Your task to perform on an android device: choose inbox layout in the gmail app Image 0: 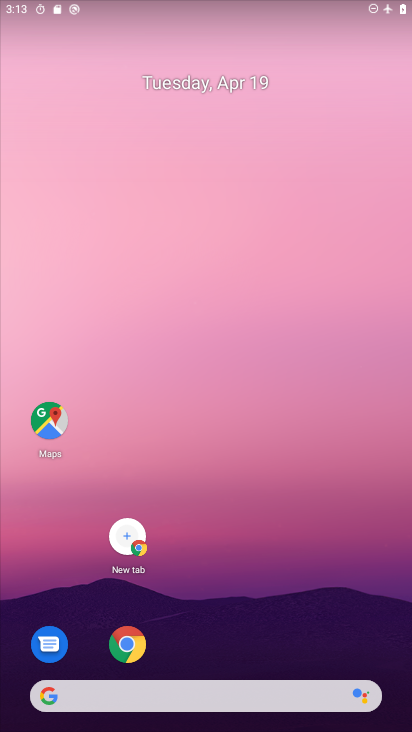
Step 0: drag from (181, 595) to (137, 134)
Your task to perform on an android device: choose inbox layout in the gmail app Image 1: 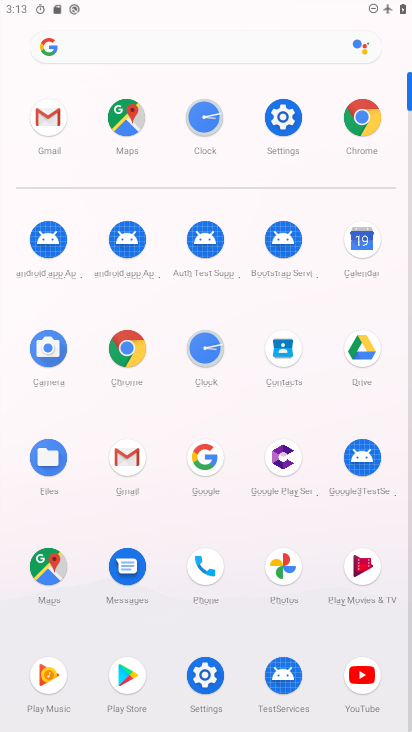
Step 1: click (128, 458)
Your task to perform on an android device: choose inbox layout in the gmail app Image 2: 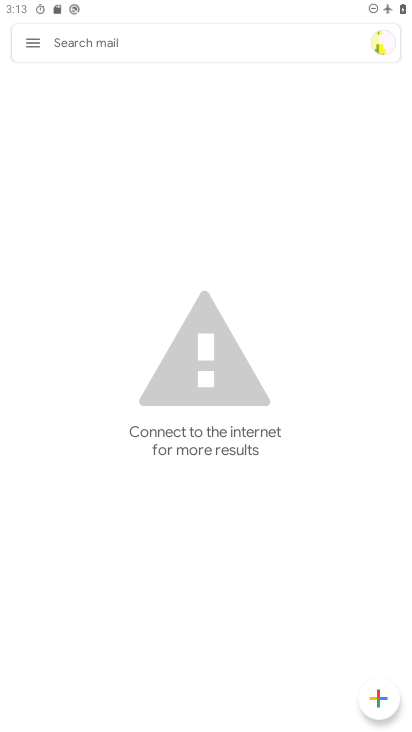
Step 2: click (33, 41)
Your task to perform on an android device: choose inbox layout in the gmail app Image 3: 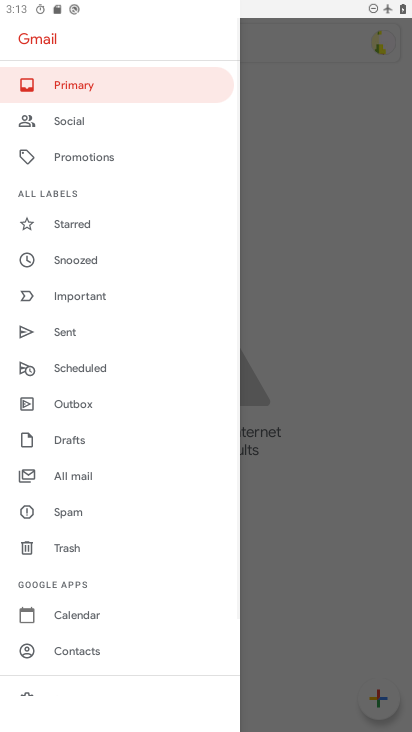
Step 3: click (367, 117)
Your task to perform on an android device: choose inbox layout in the gmail app Image 4: 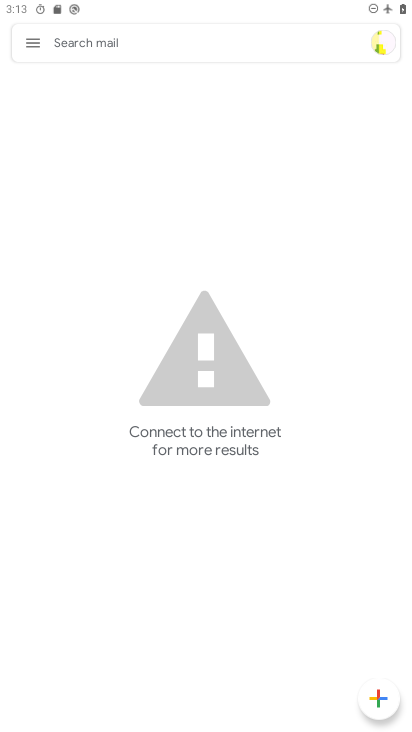
Step 4: click (25, 46)
Your task to perform on an android device: choose inbox layout in the gmail app Image 5: 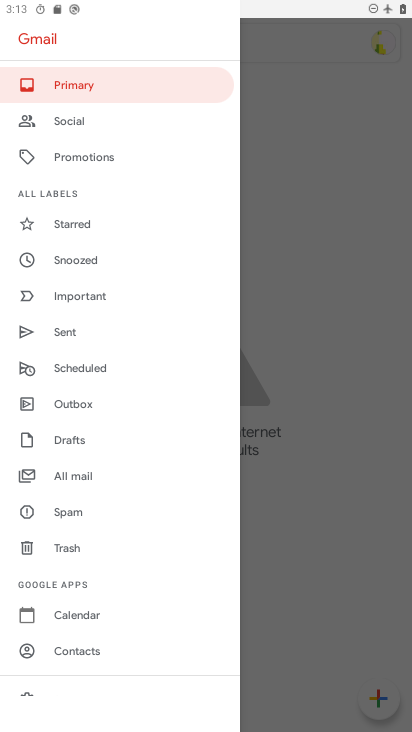
Step 5: drag from (85, 580) to (103, 340)
Your task to perform on an android device: choose inbox layout in the gmail app Image 6: 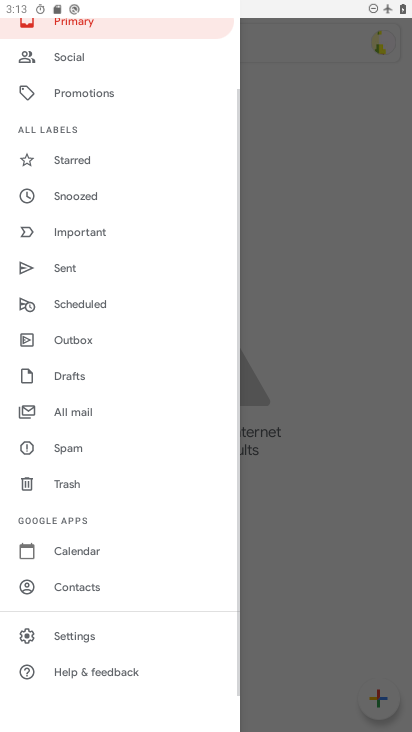
Step 6: click (70, 631)
Your task to perform on an android device: choose inbox layout in the gmail app Image 7: 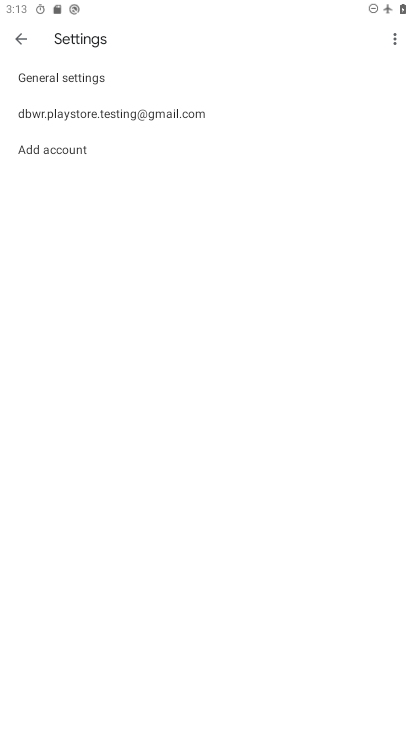
Step 7: click (75, 110)
Your task to perform on an android device: choose inbox layout in the gmail app Image 8: 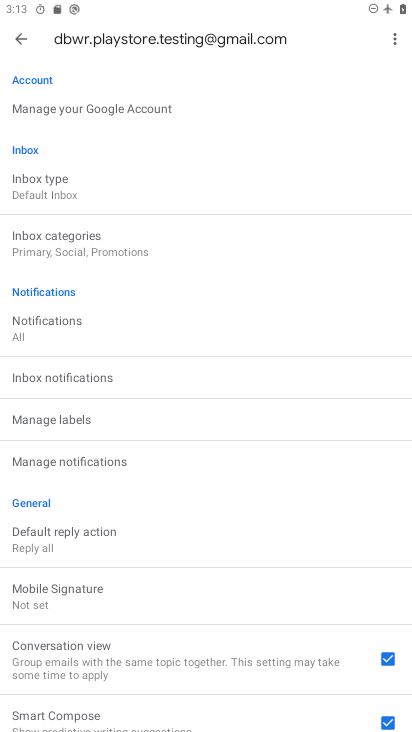
Step 8: click (44, 192)
Your task to perform on an android device: choose inbox layout in the gmail app Image 9: 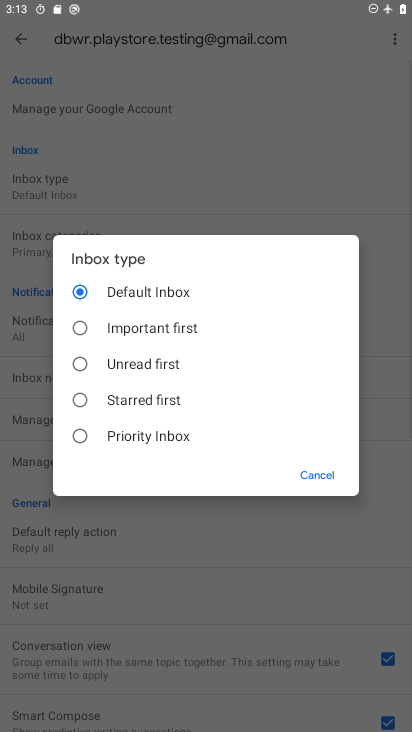
Step 9: click (100, 432)
Your task to perform on an android device: choose inbox layout in the gmail app Image 10: 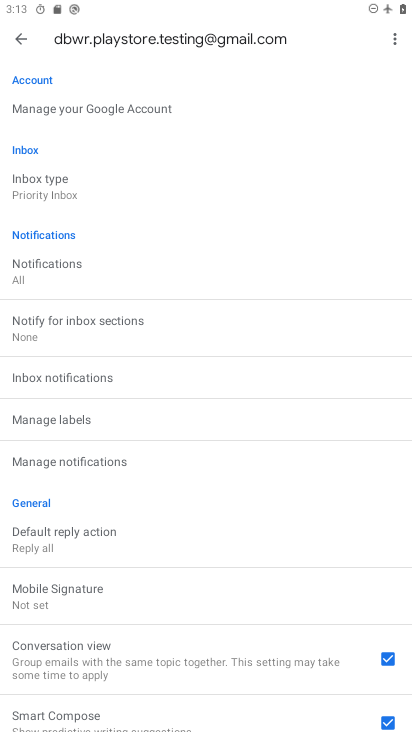
Step 10: press back button
Your task to perform on an android device: choose inbox layout in the gmail app Image 11: 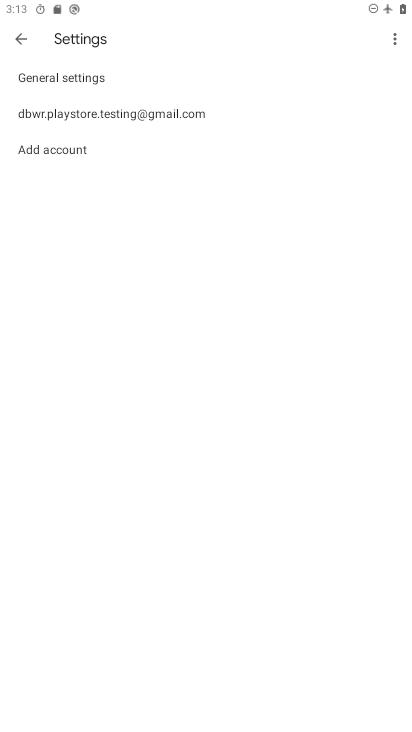
Step 11: press back button
Your task to perform on an android device: choose inbox layout in the gmail app Image 12: 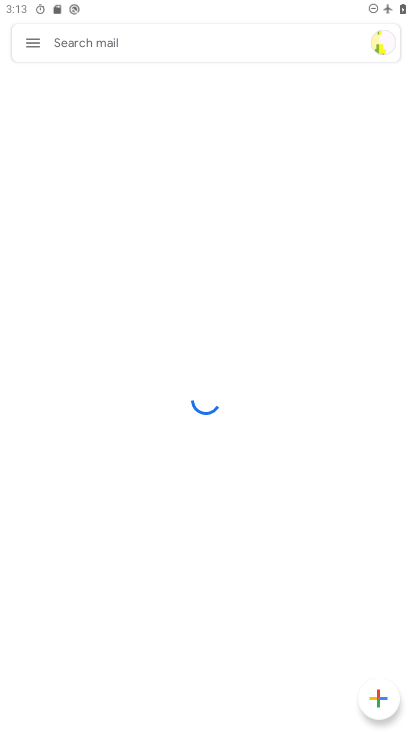
Step 12: click (33, 40)
Your task to perform on an android device: choose inbox layout in the gmail app Image 13: 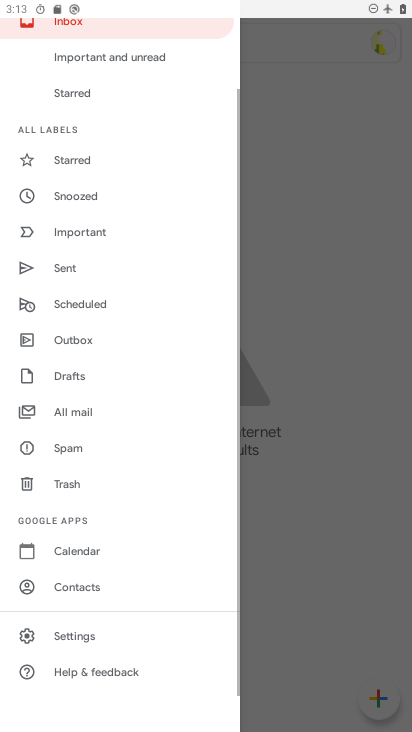
Step 13: task complete